Your task to perform on an android device: change text size in settings app Image 0: 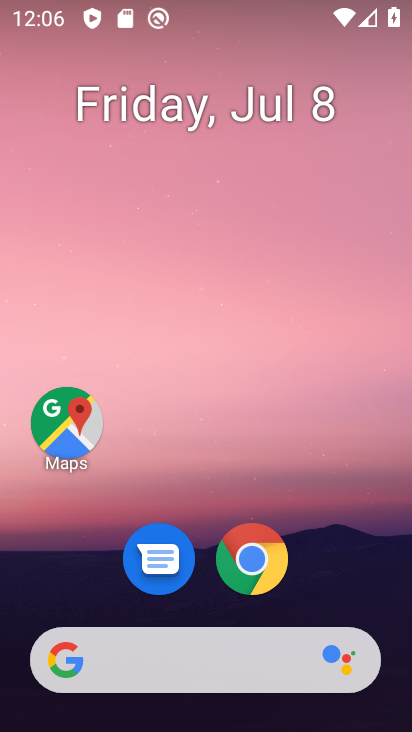
Step 0: drag from (226, 599) to (138, 126)
Your task to perform on an android device: change text size in settings app Image 1: 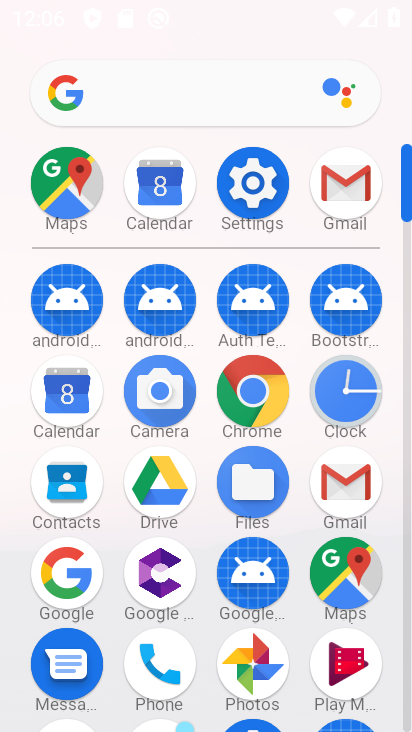
Step 1: click (258, 211)
Your task to perform on an android device: change text size in settings app Image 2: 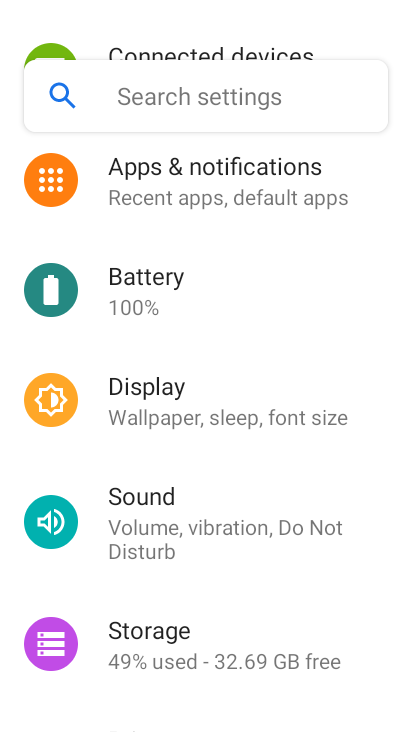
Step 2: click (172, 417)
Your task to perform on an android device: change text size in settings app Image 3: 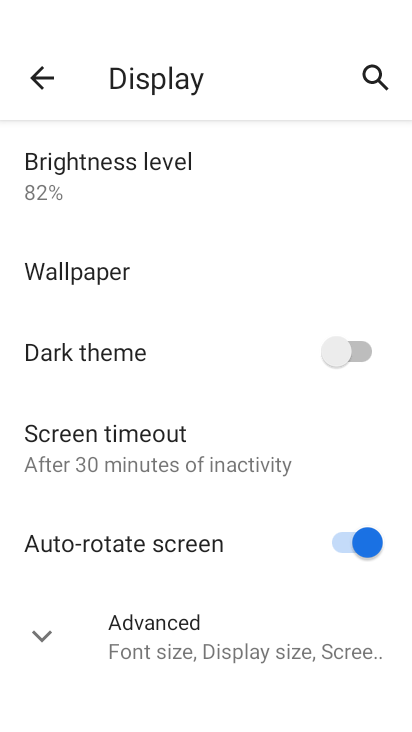
Step 3: click (226, 627)
Your task to perform on an android device: change text size in settings app Image 4: 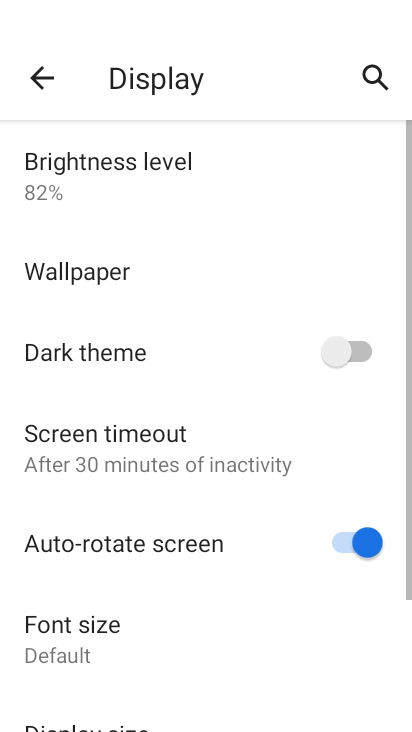
Step 4: click (142, 644)
Your task to perform on an android device: change text size in settings app Image 5: 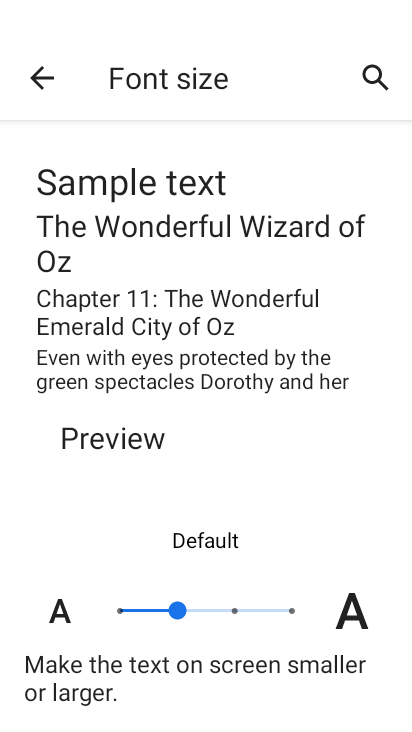
Step 5: click (127, 609)
Your task to perform on an android device: change text size in settings app Image 6: 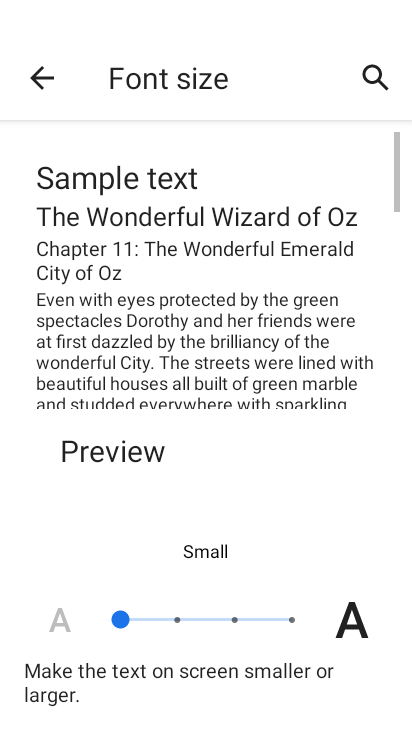
Step 6: task complete